Your task to perform on an android device: turn on airplane mode Image 0: 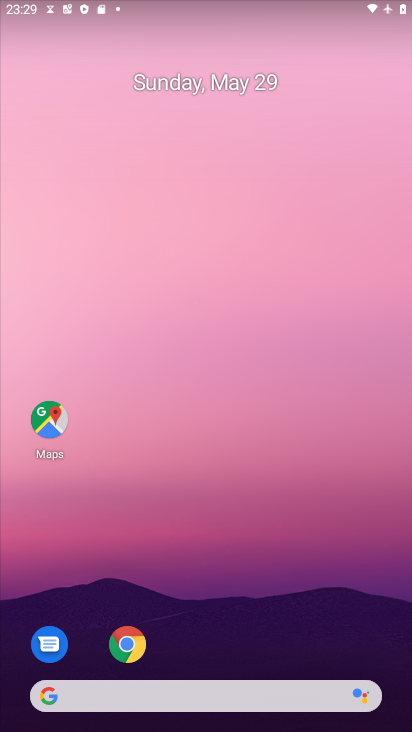
Step 0: drag from (198, 636) to (193, 270)
Your task to perform on an android device: turn on airplane mode Image 1: 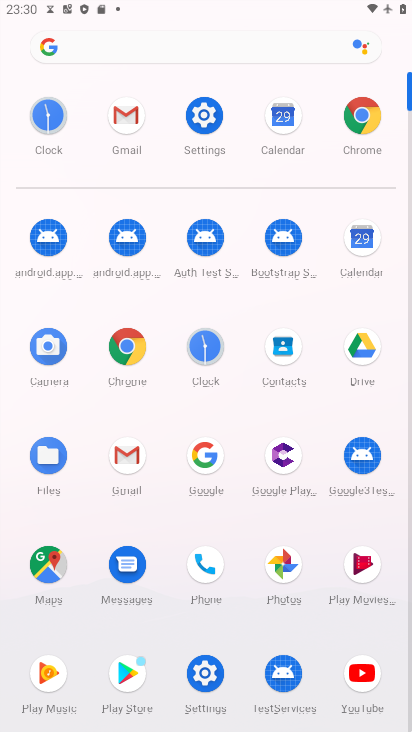
Step 1: click (211, 104)
Your task to perform on an android device: turn on airplane mode Image 2: 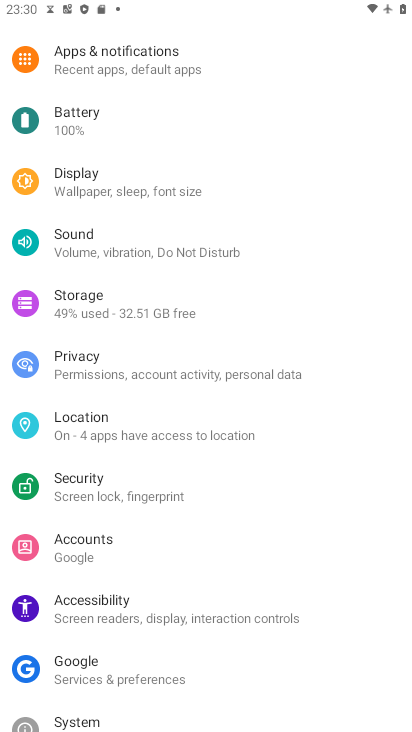
Step 2: drag from (146, 103) to (156, 514)
Your task to perform on an android device: turn on airplane mode Image 3: 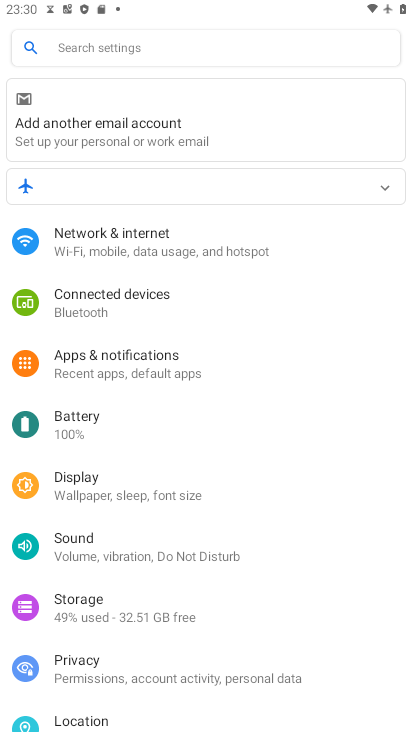
Step 3: click (165, 243)
Your task to perform on an android device: turn on airplane mode Image 4: 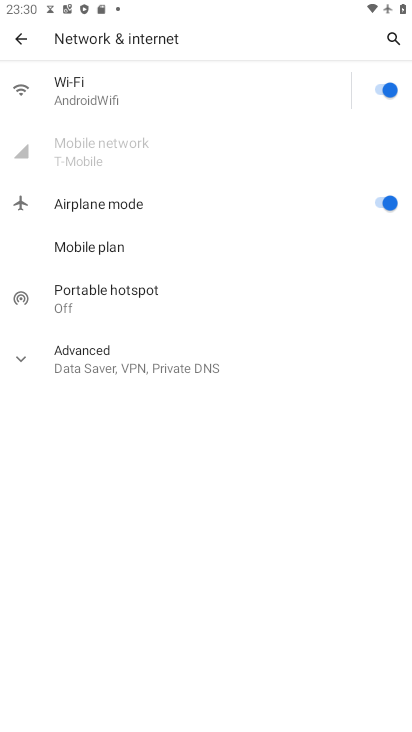
Step 4: task complete